Your task to perform on an android device: turn off notifications settings in the gmail app Image 0: 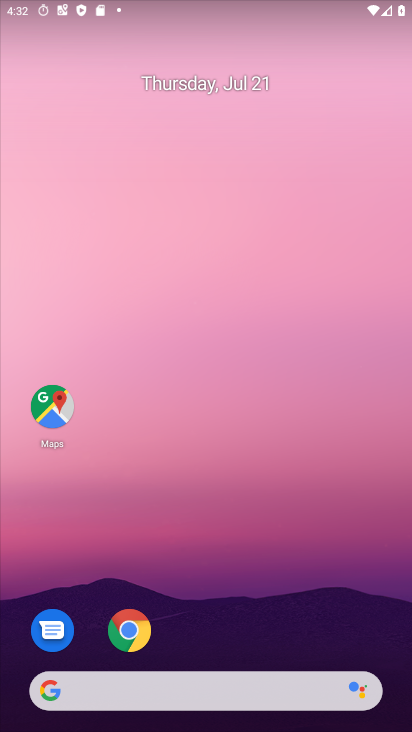
Step 0: drag from (254, 699) to (273, 160)
Your task to perform on an android device: turn off notifications settings in the gmail app Image 1: 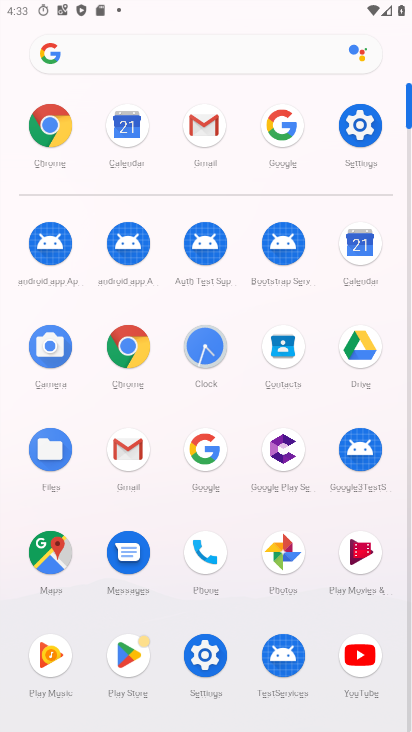
Step 1: click (204, 122)
Your task to perform on an android device: turn off notifications settings in the gmail app Image 2: 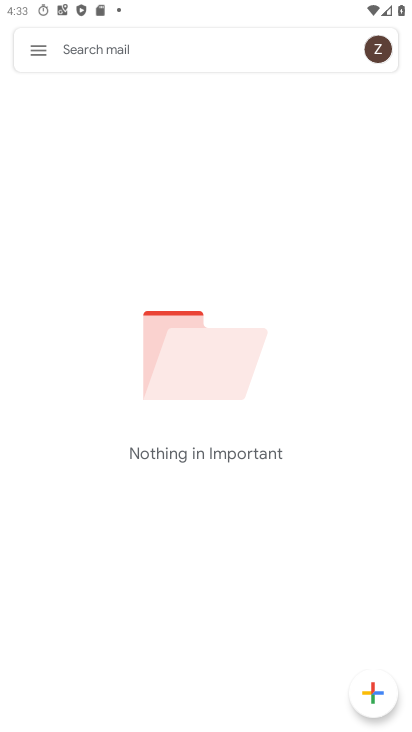
Step 2: click (42, 49)
Your task to perform on an android device: turn off notifications settings in the gmail app Image 3: 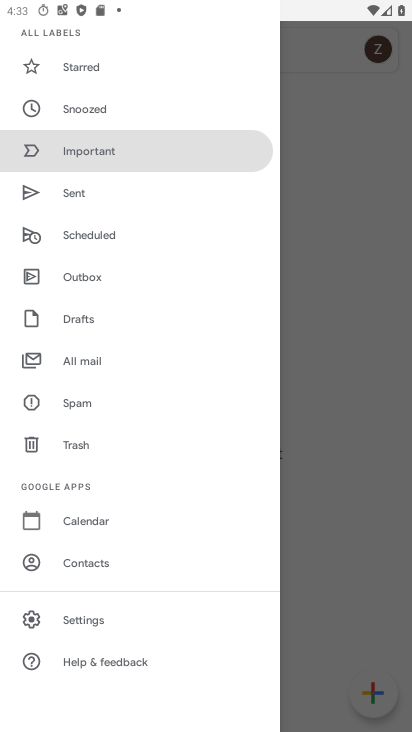
Step 3: click (84, 621)
Your task to perform on an android device: turn off notifications settings in the gmail app Image 4: 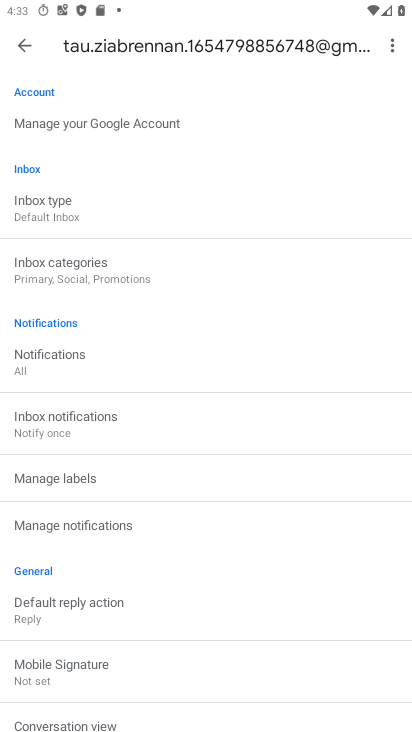
Step 4: click (81, 518)
Your task to perform on an android device: turn off notifications settings in the gmail app Image 5: 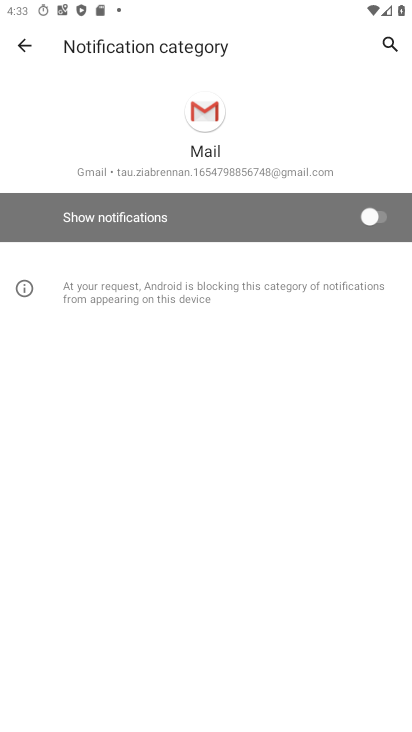
Step 5: task complete